Your task to perform on an android device: turn off wifi Image 0: 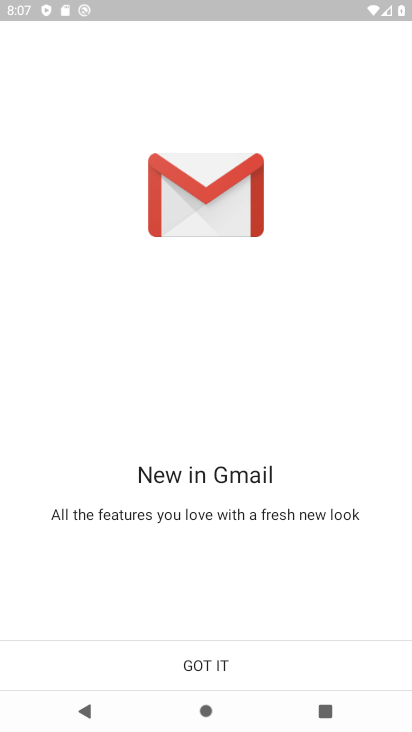
Step 0: press home button
Your task to perform on an android device: turn off wifi Image 1: 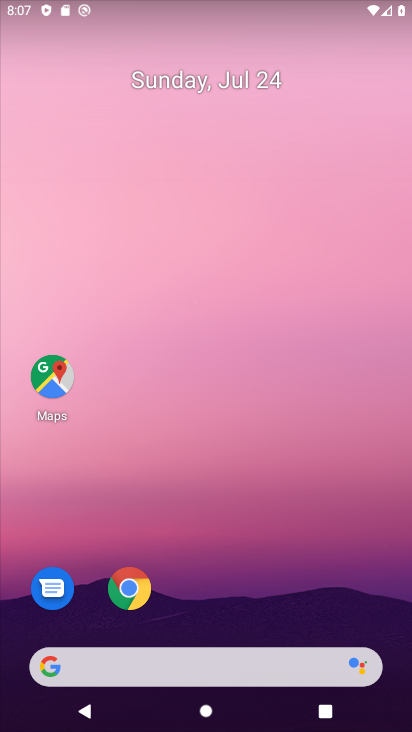
Step 1: drag from (381, 616) to (335, 31)
Your task to perform on an android device: turn off wifi Image 2: 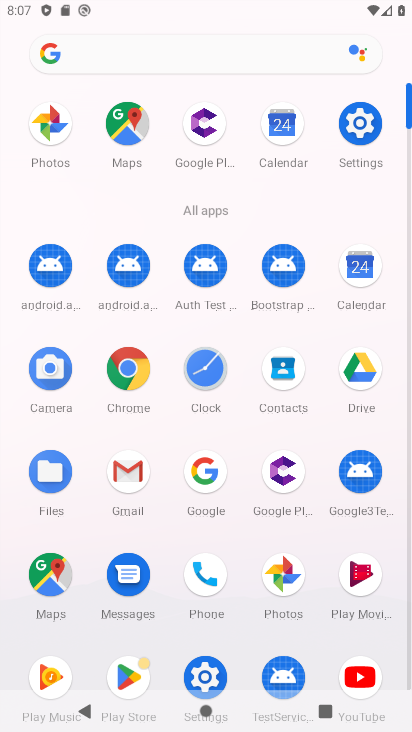
Step 2: click (203, 675)
Your task to perform on an android device: turn off wifi Image 3: 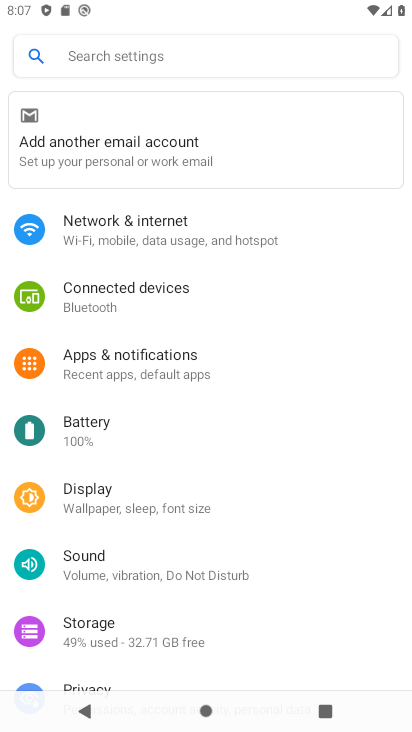
Step 3: click (103, 228)
Your task to perform on an android device: turn off wifi Image 4: 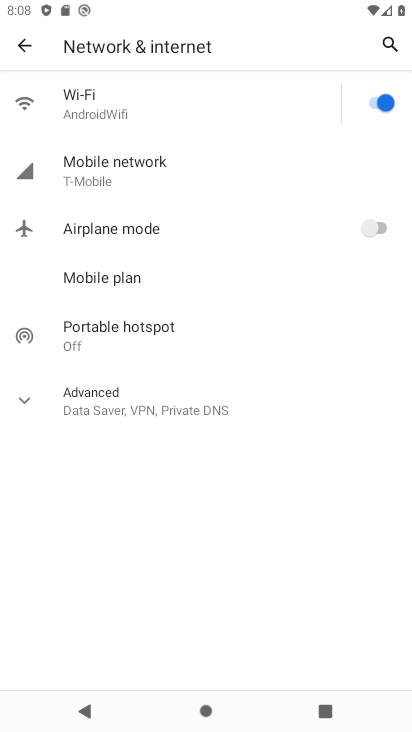
Step 4: click (371, 104)
Your task to perform on an android device: turn off wifi Image 5: 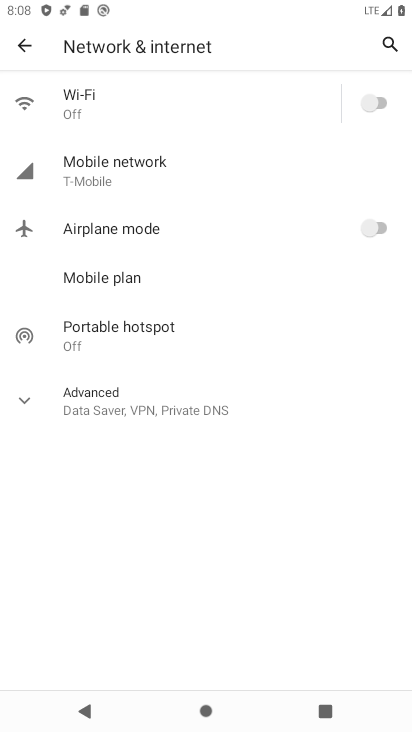
Step 5: task complete